Your task to perform on an android device: Do I have any events this weekend? Image 0: 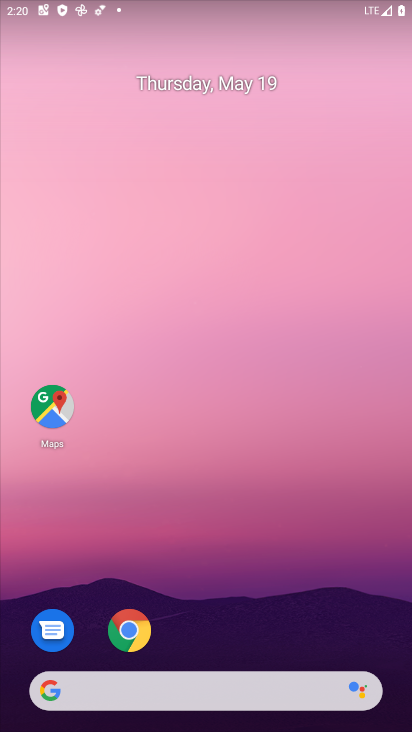
Step 0: drag from (368, 547) to (349, 8)
Your task to perform on an android device: Do I have any events this weekend? Image 1: 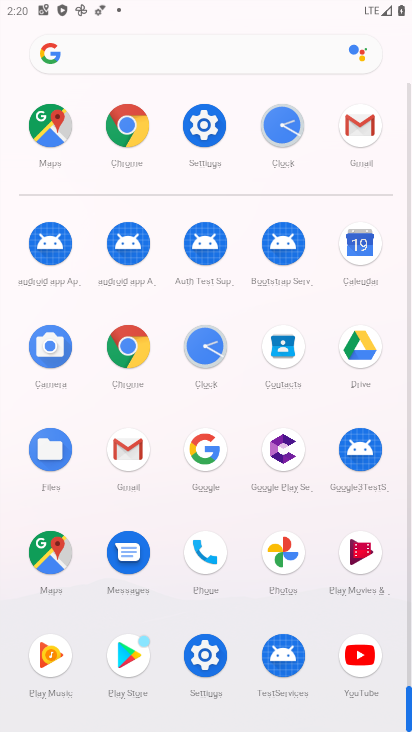
Step 1: click (356, 243)
Your task to perform on an android device: Do I have any events this weekend? Image 2: 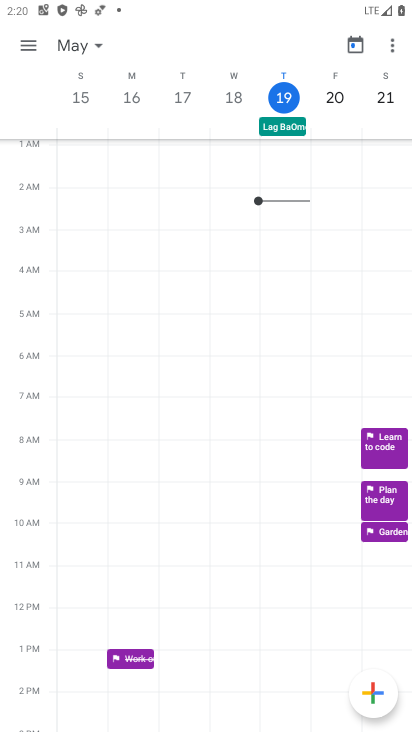
Step 2: click (20, 45)
Your task to perform on an android device: Do I have any events this weekend? Image 3: 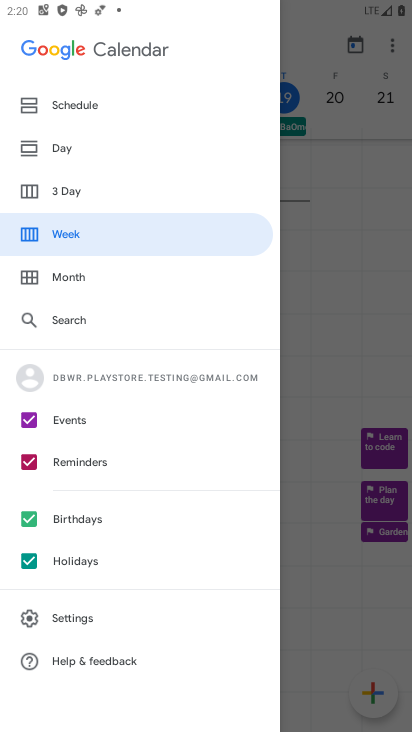
Step 3: click (364, 401)
Your task to perform on an android device: Do I have any events this weekend? Image 4: 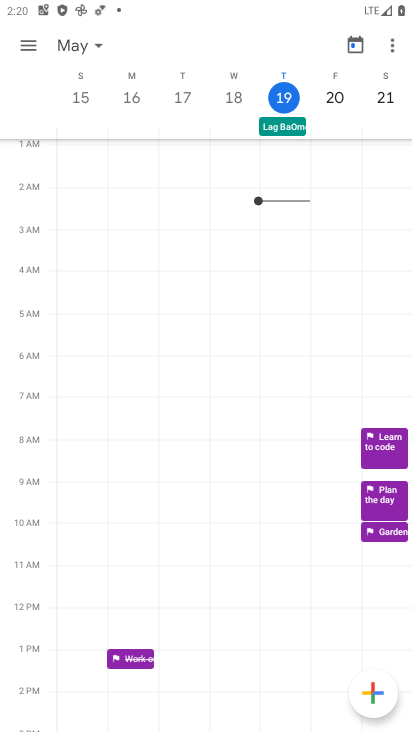
Step 4: task complete